Your task to perform on an android device: Go to Google Image 0: 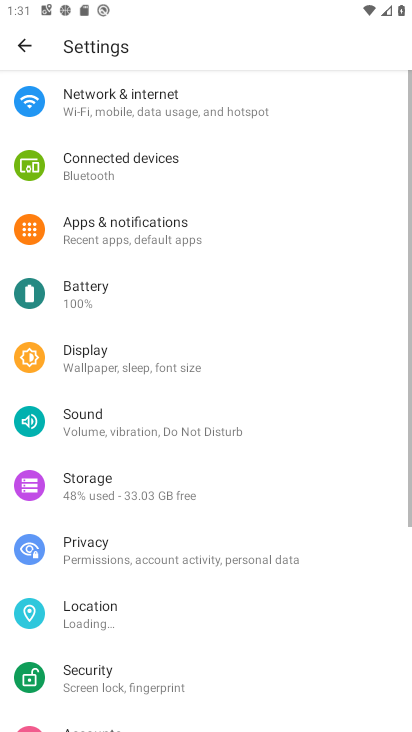
Step 0: press home button
Your task to perform on an android device: Go to Google Image 1: 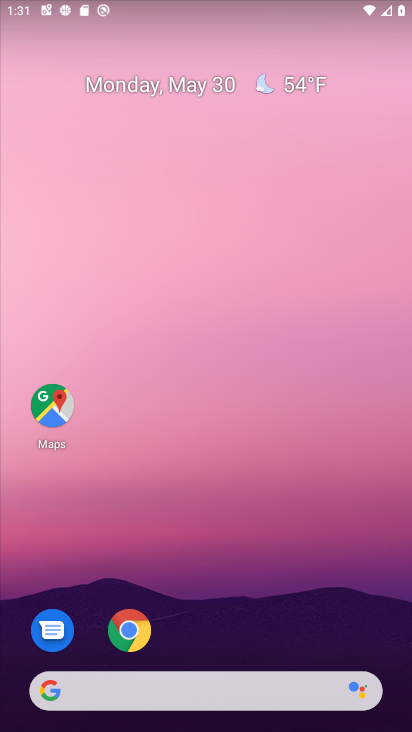
Step 1: drag from (108, 688) to (314, 155)
Your task to perform on an android device: Go to Google Image 2: 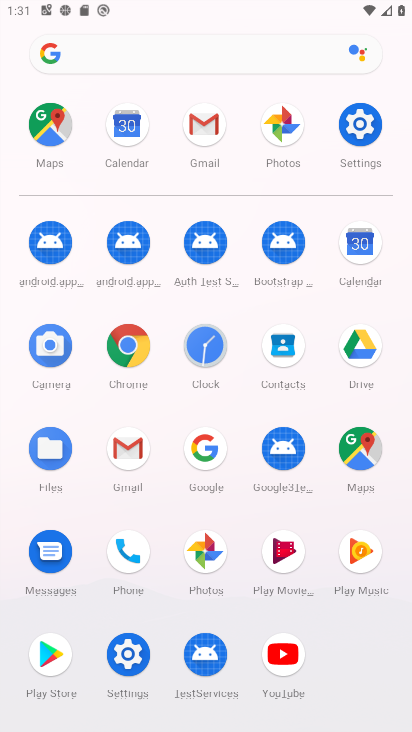
Step 2: click (213, 452)
Your task to perform on an android device: Go to Google Image 3: 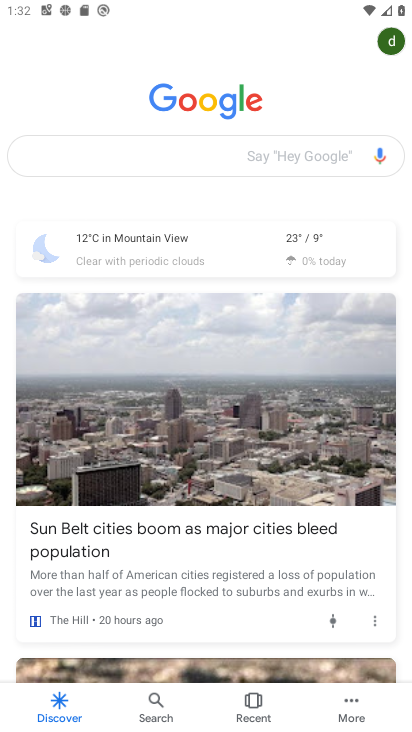
Step 3: task complete